Your task to perform on an android device: open app "Flipkart Online Shopping App" Image 0: 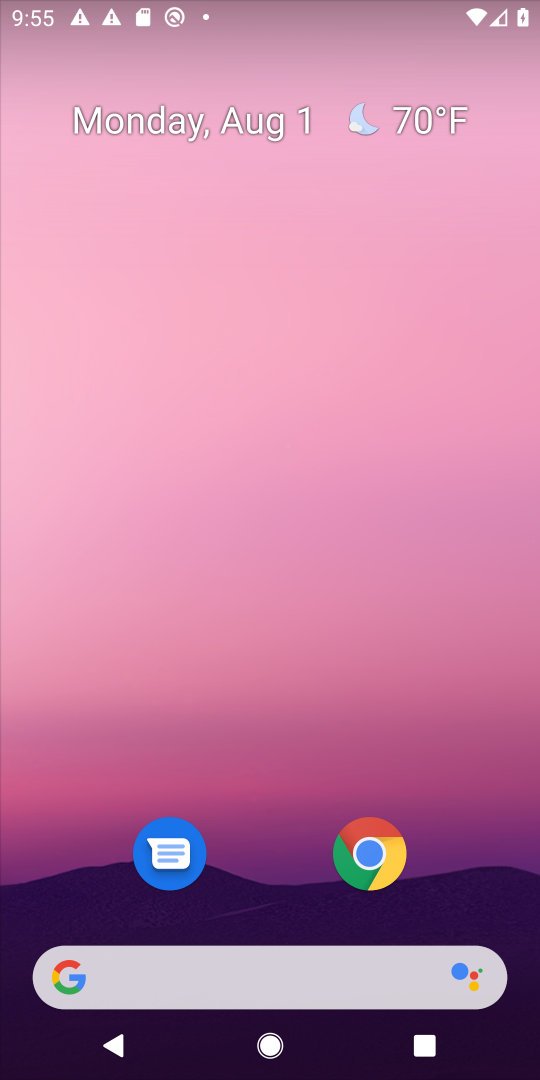
Step 0: click (479, 498)
Your task to perform on an android device: open app "Flipkart Online Shopping App" Image 1: 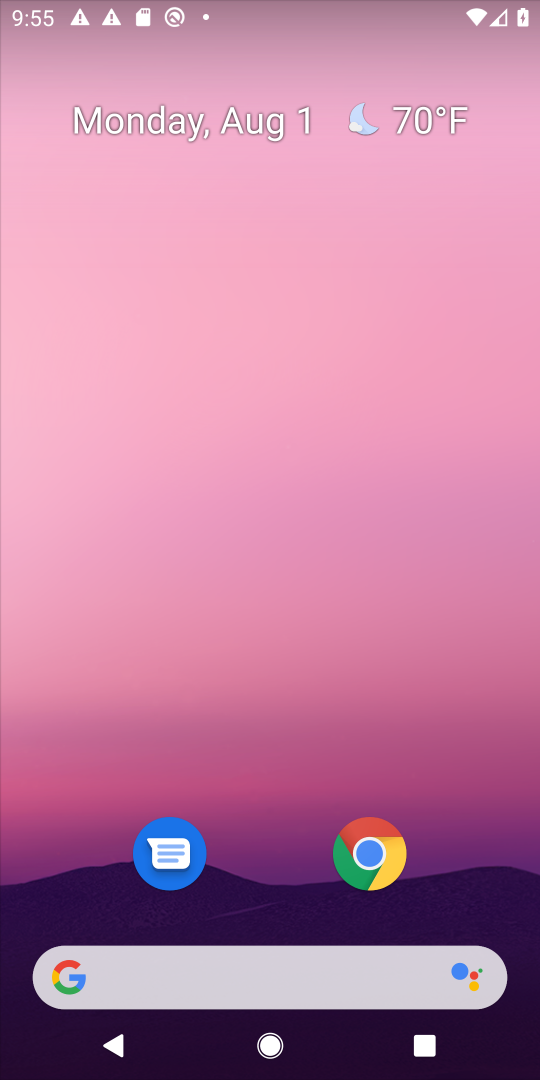
Step 1: drag from (284, 877) to (294, 371)
Your task to perform on an android device: open app "Flipkart Online Shopping App" Image 2: 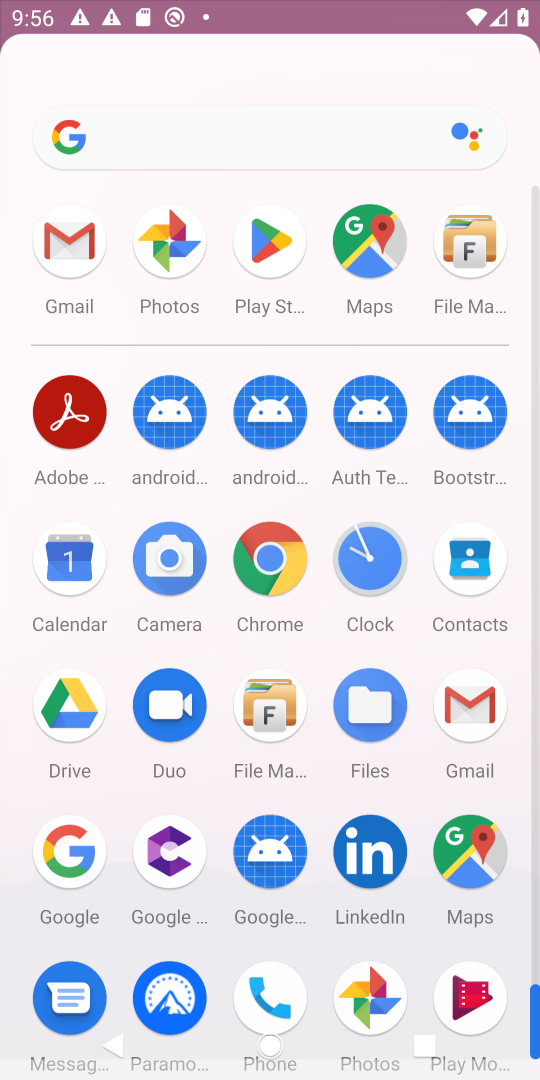
Step 2: drag from (284, 828) to (359, 114)
Your task to perform on an android device: open app "Flipkart Online Shopping App" Image 3: 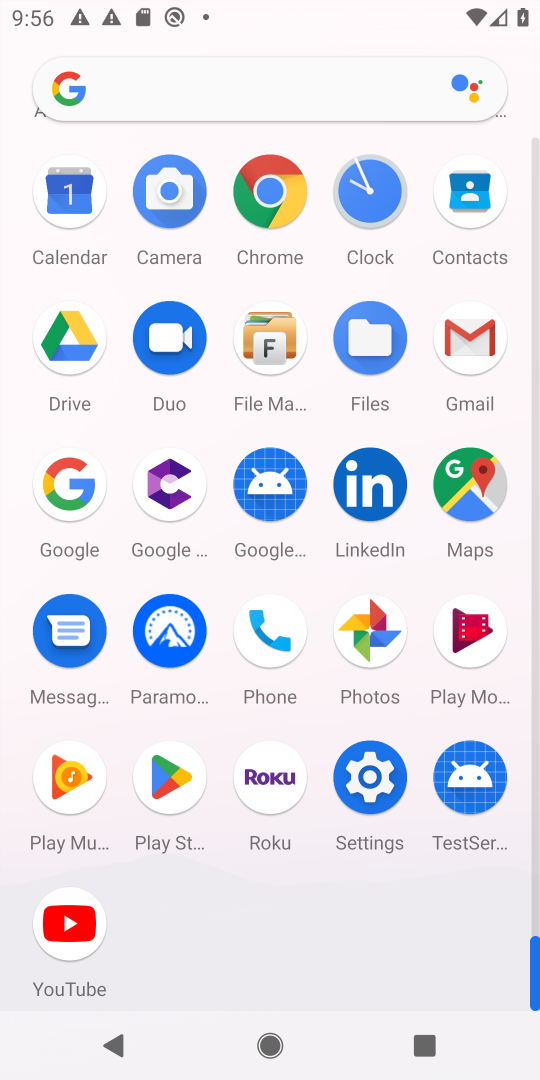
Step 3: drag from (248, 872) to (309, 160)
Your task to perform on an android device: open app "Flipkart Online Shopping App" Image 4: 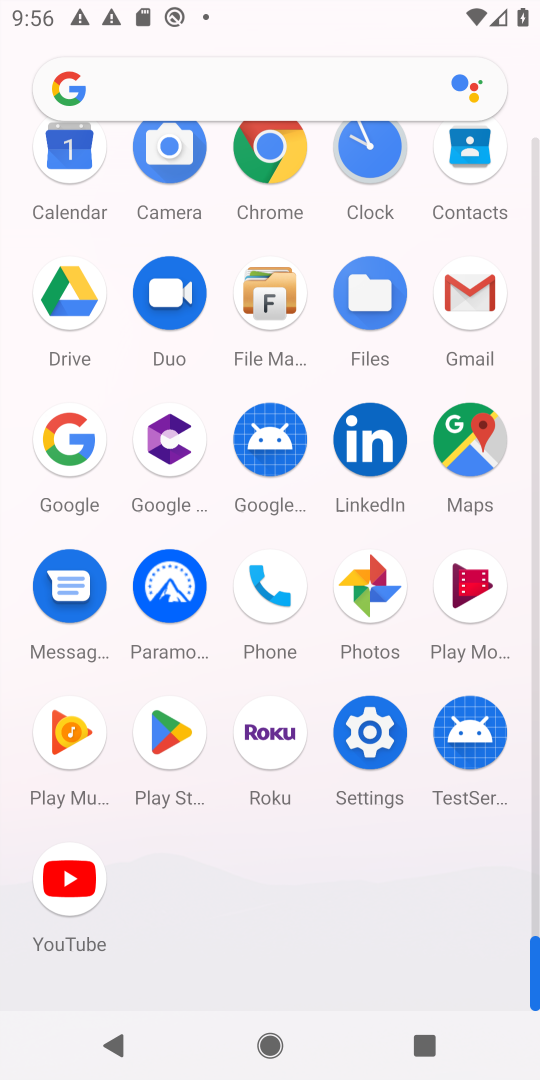
Step 4: drag from (272, 935) to (334, 318)
Your task to perform on an android device: open app "Flipkart Online Shopping App" Image 5: 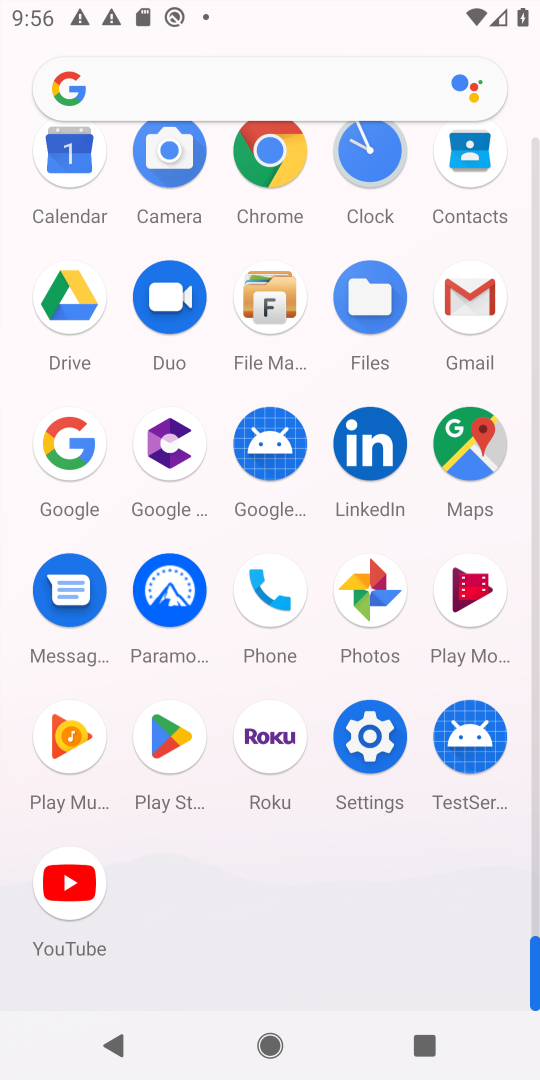
Step 5: drag from (244, 908) to (256, 322)
Your task to perform on an android device: open app "Flipkart Online Shopping App" Image 6: 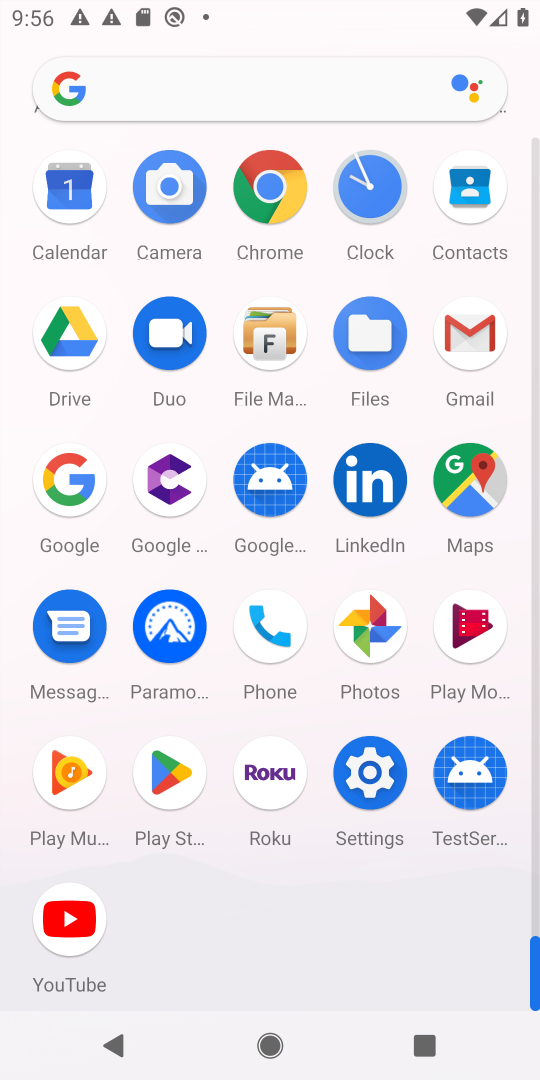
Step 6: drag from (227, 238) to (245, 528)
Your task to perform on an android device: open app "Flipkart Online Shopping App" Image 7: 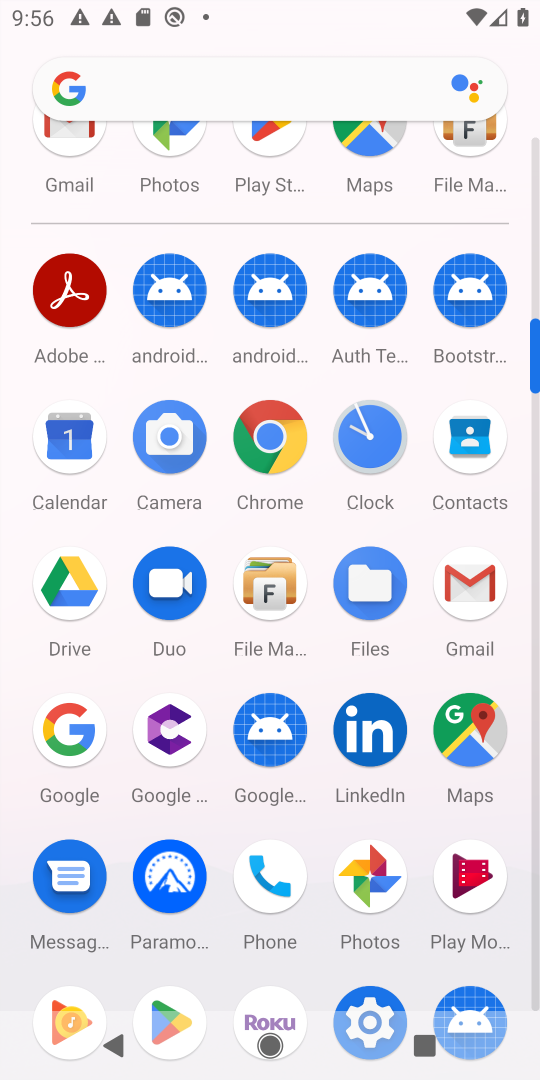
Step 7: click (272, 139)
Your task to perform on an android device: open app "Flipkart Online Shopping App" Image 8: 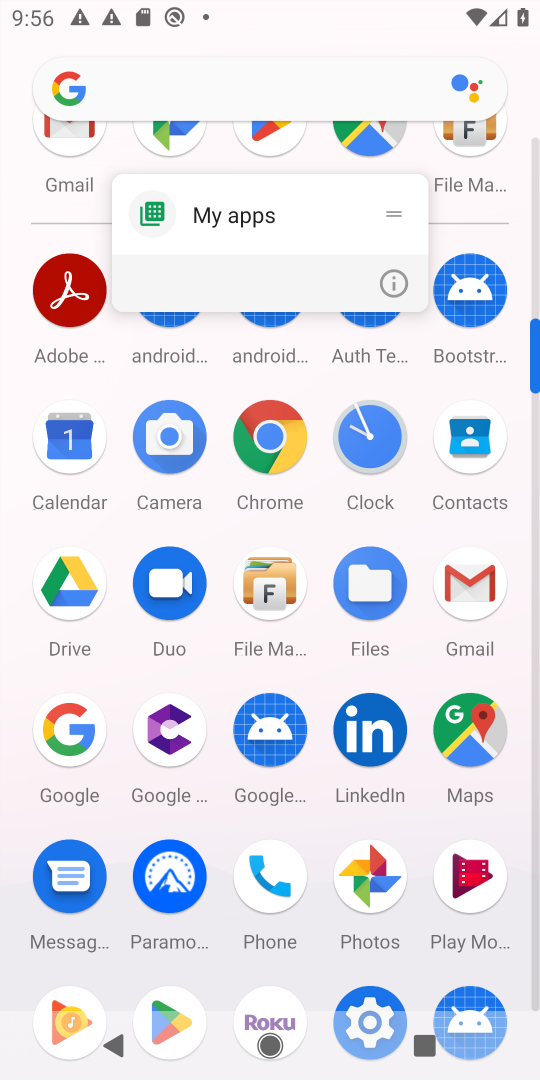
Step 8: click (397, 279)
Your task to perform on an android device: open app "Flipkart Online Shopping App" Image 9: 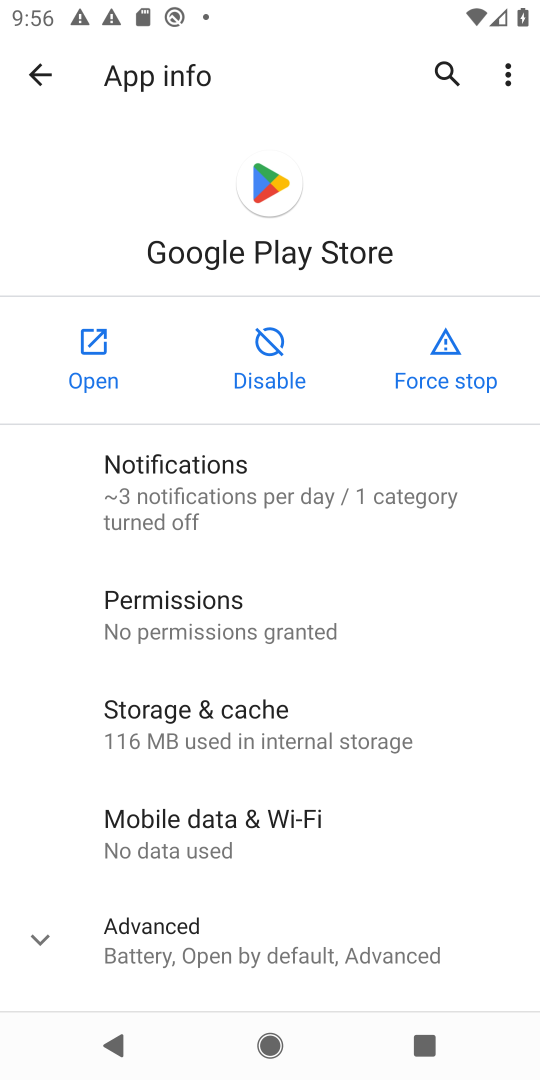
Step 9: click (96, 380)
Your task to perform on an android device: open app "Flipkart Online Shopping App" Image 10: 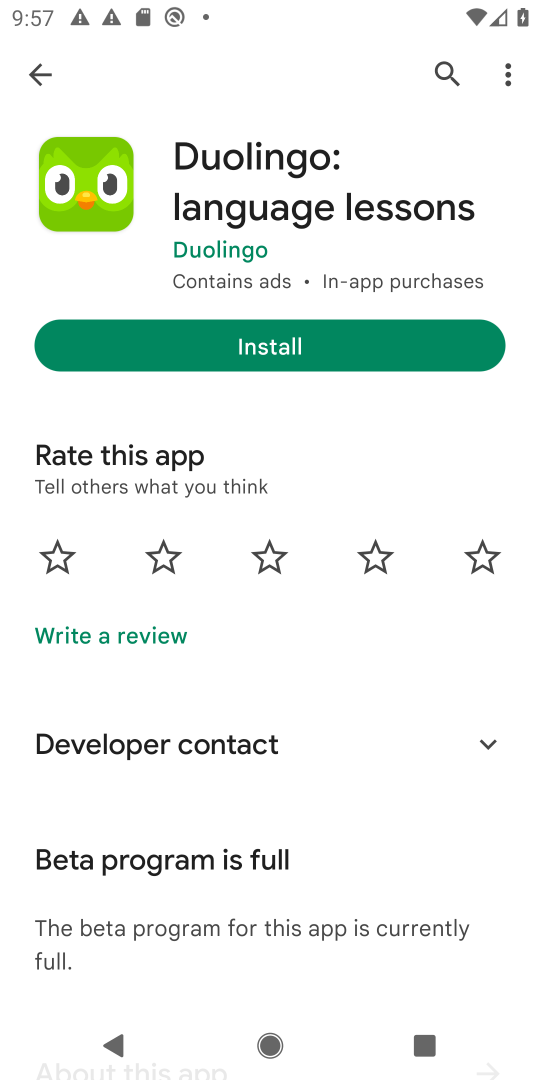
Step 10: drag from (225, 459) to (290, 1078)
Your task to perform on an android device: open app "Flipkart Online Shopping App" Image 11: 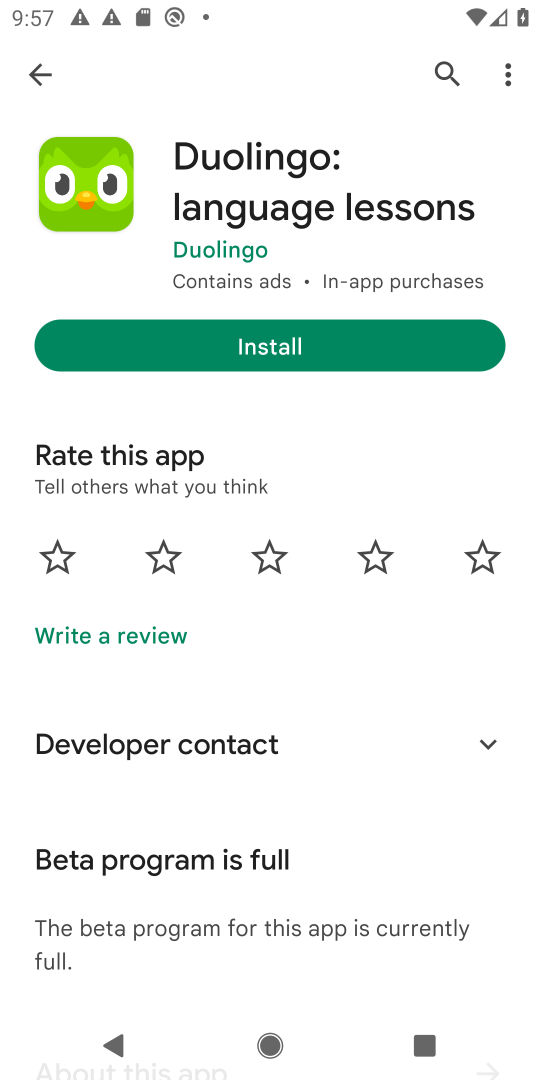
Step 11: drag from (300, 408) to (381, 999)
Your task to perform on an android device: open app "Flipkart Online Shopping App" Image 12: 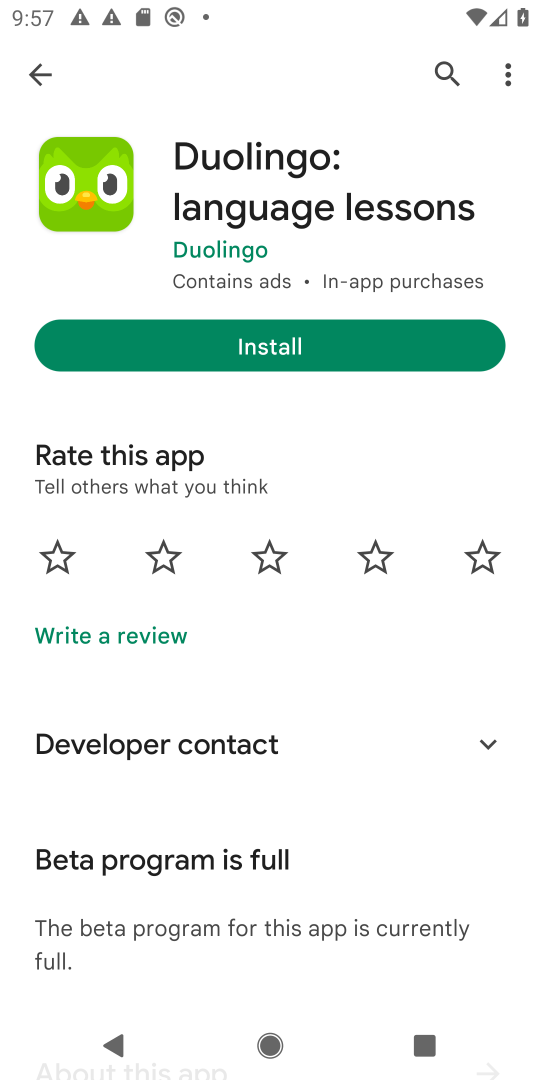
Step 12: click (448, 61)
Your task to perform on an android device: open app "Flipkart Online Shopping App" Image 13: 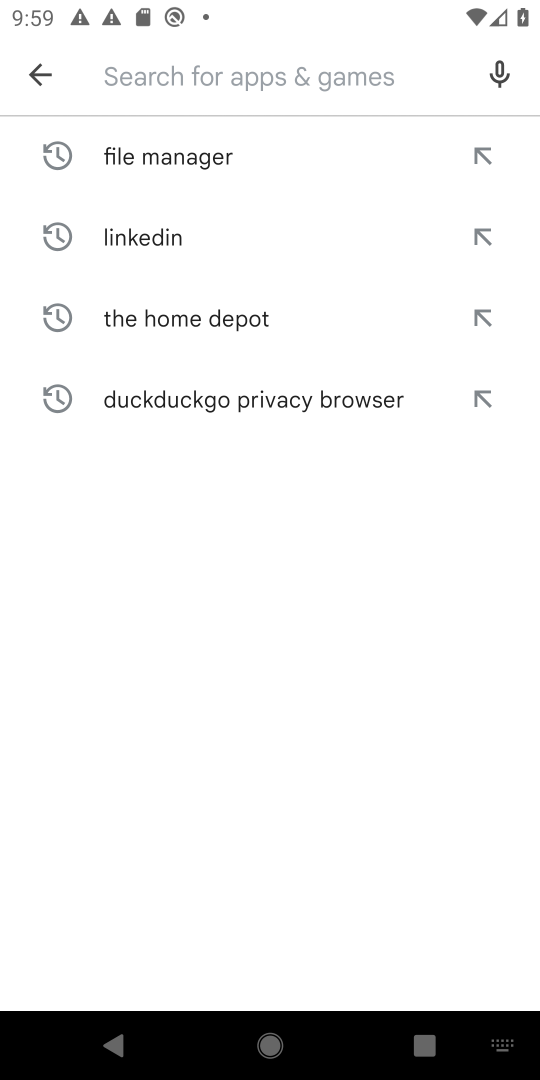
Step 13: type "Flipkart Online Shopping App"
Your task to perform on an android device: open app "Flipkart Online Shopping App" Image 14: 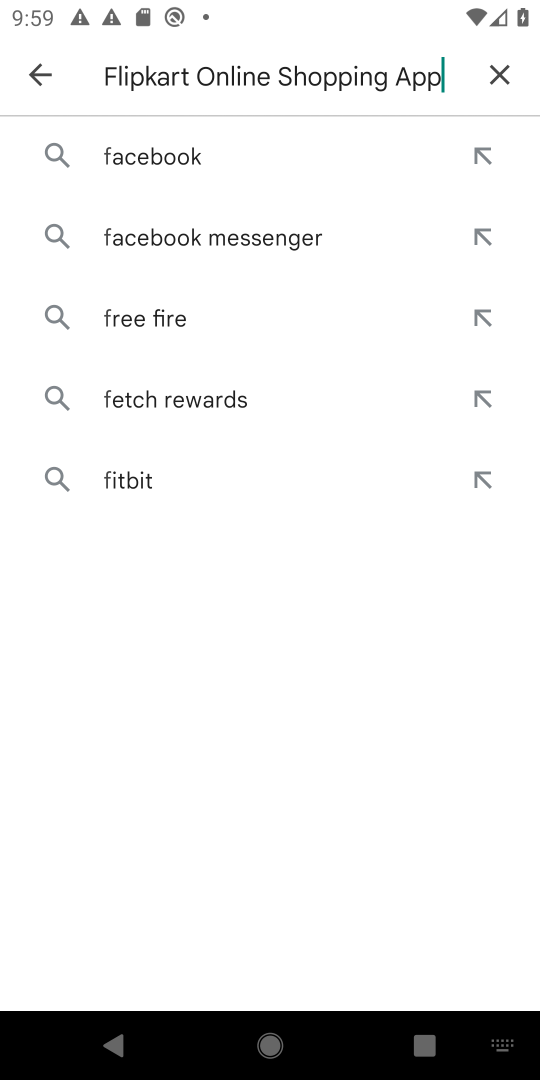
Step 14: type ""
Your task to perform on an android device: open app "Flipkart Online Shopping App" Image 15: 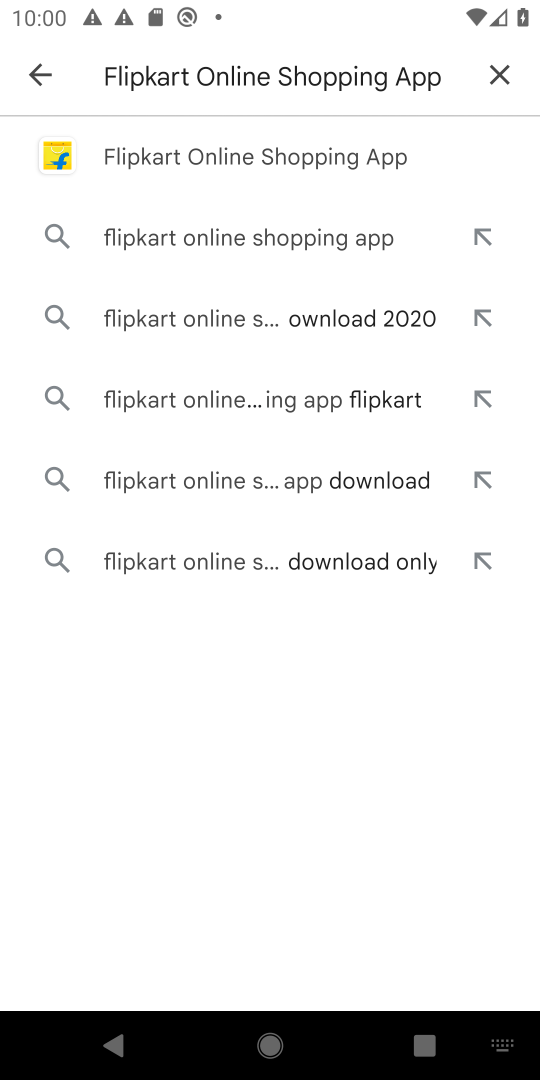
Step 15: click (356, 146)
Your task to perform on an android device: open app "Flipkart Online Shopping App" Image 16: 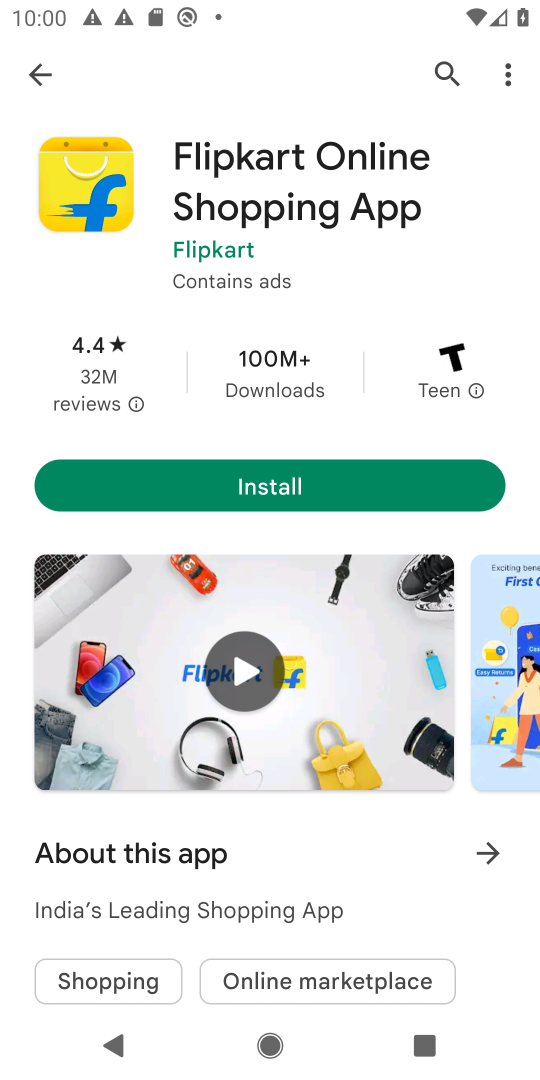
Step 16: task complete